Your task to perform on an android device: Go to Maps Image 0: 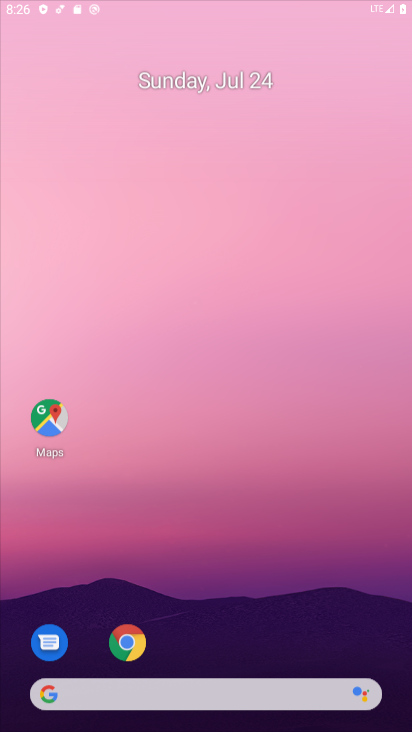
Step 0: drag from (289, 308) to (397, 126)
Your task to perform on an android device: Go to Maps Image 1: 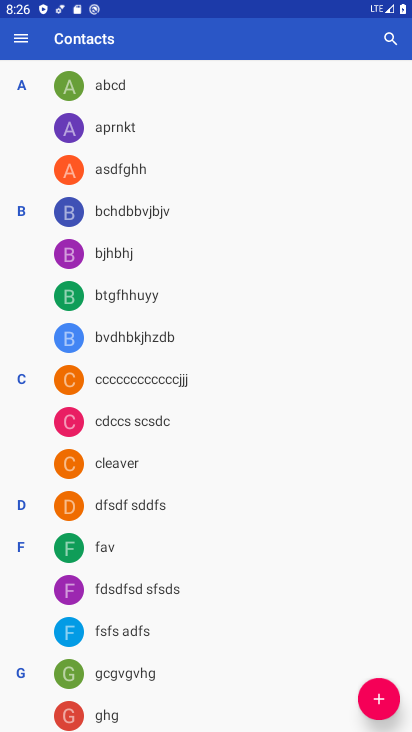
Step 1: press home button
Your task to perform on an android device: Go to Maps Image 2: 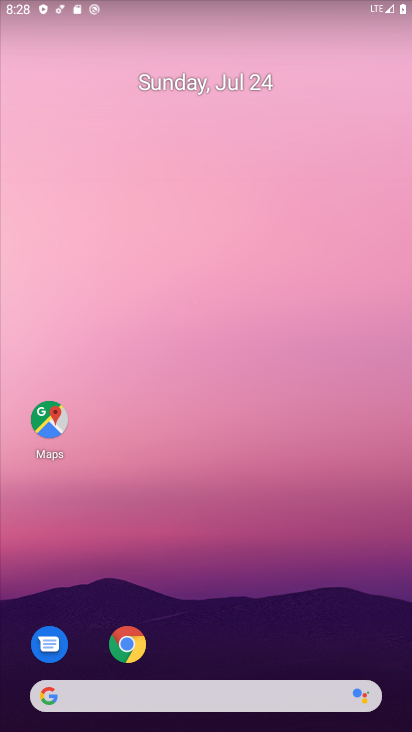
Step 2: click (59, 416)
Your task to perform on an android device: Go to Maps Image 3: 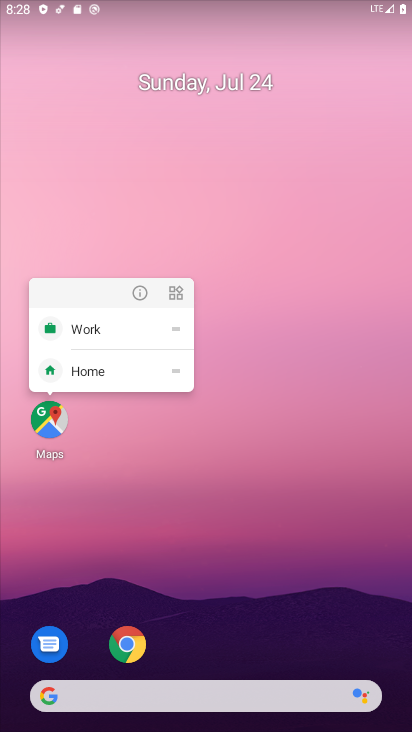
Step 3: click (40, 421)
Your task to perform on an android device: Go to Maps Image 4: 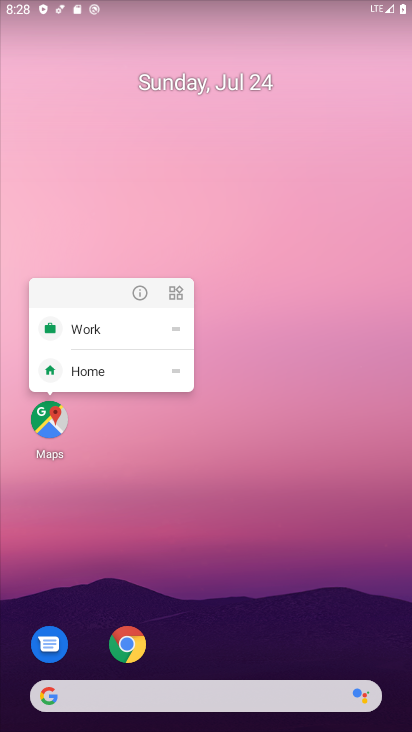
Step 4: click (40, 421)
Your task to perform on an android device: Go to Maps Image 5: 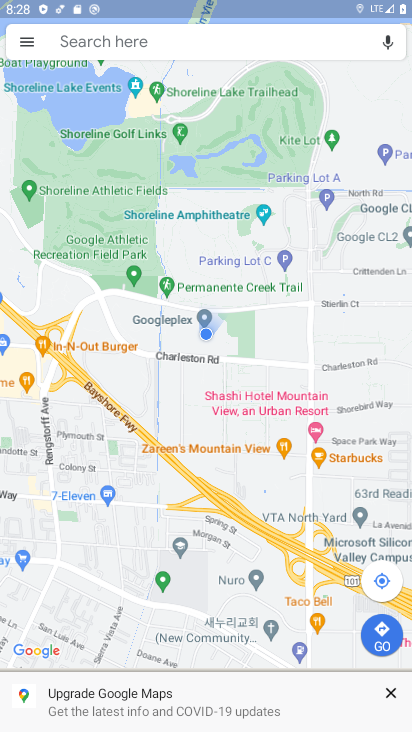
Step 5: task complete